Your task to perform on an android device: turn off smart reply in the gmail app Image 0: 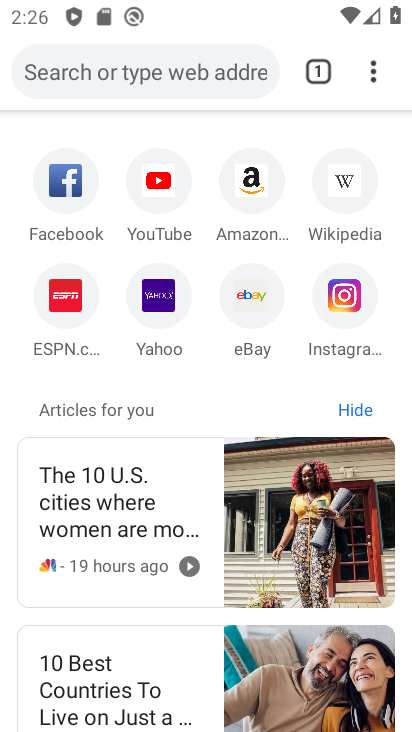
Step 0: press home button
Your task to perform on an android device: turn off smart reply in the gmail app Image 1: 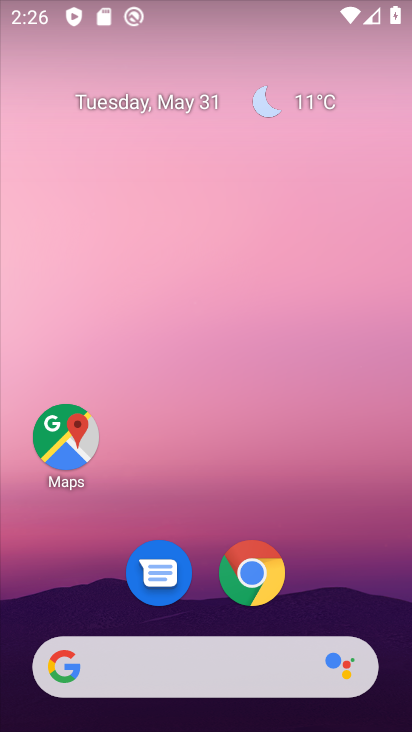
Step 1: drag from (372, 611) to (243, 141)
Your task to perform on an android device: turn off smart reply in the gmail app Image 2: 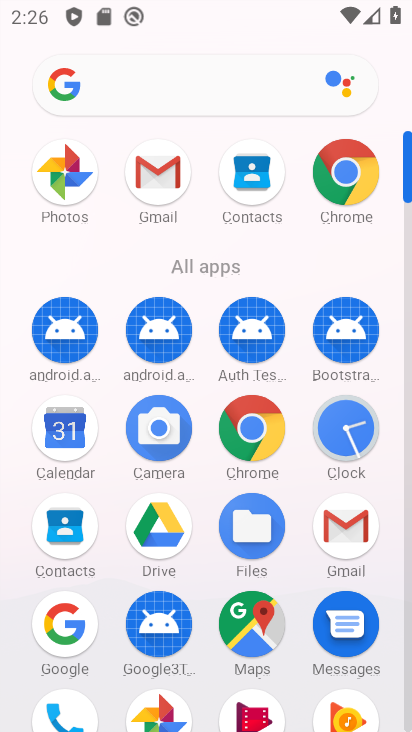
Step 2: click (168, 189)
Your task to perform on an android device: turn off smart reply in the gmail app Image 3: 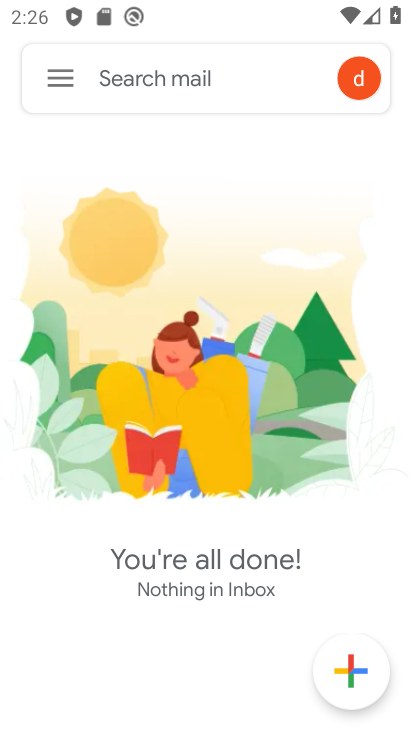
Step 3: click (71, 93)
Your task to perform on an android device: turn off smart reply in the gmail app Image 4: 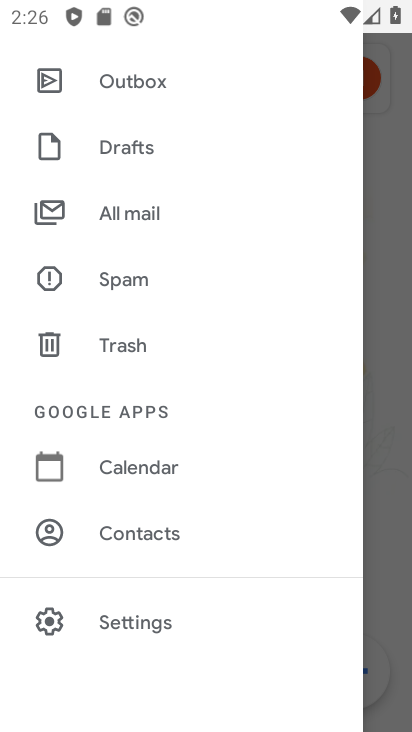
Step 4: click (181, 635)
Your task to perform on an android device: turn off smart reply in the gmail app Image 5: 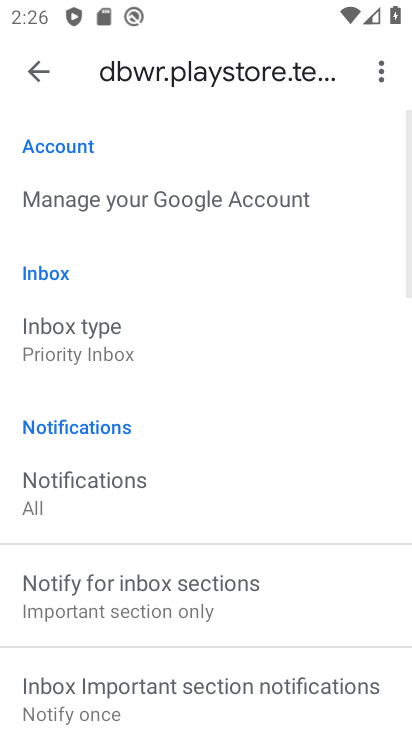
Step 5: drag from (181, 635) to (176, 170)
Your task to perform on an android device: turn off smart reply in the gmail app Image 6: 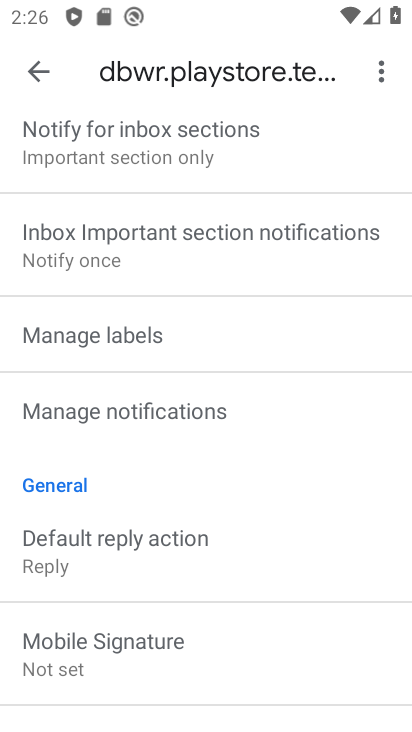
Step 6: drag from (260, 666) to (224, 194)
Your task to perform on an android device: turn off smart reply in the gmail app Image 7: 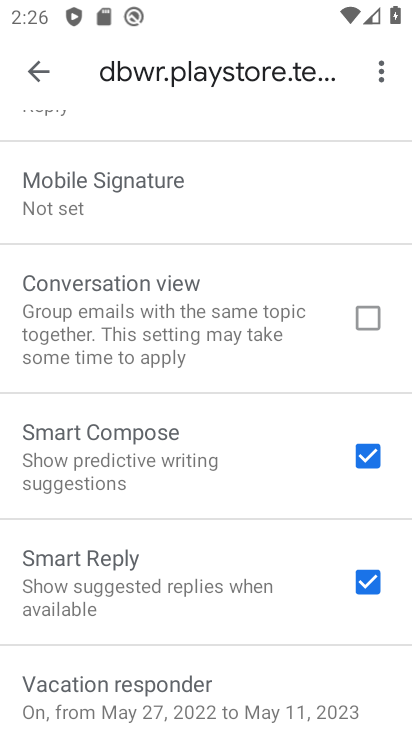
Step 7: click (372, 592)
Your task to perform on an android device: turn off smart reply in the gmail app Image 8: 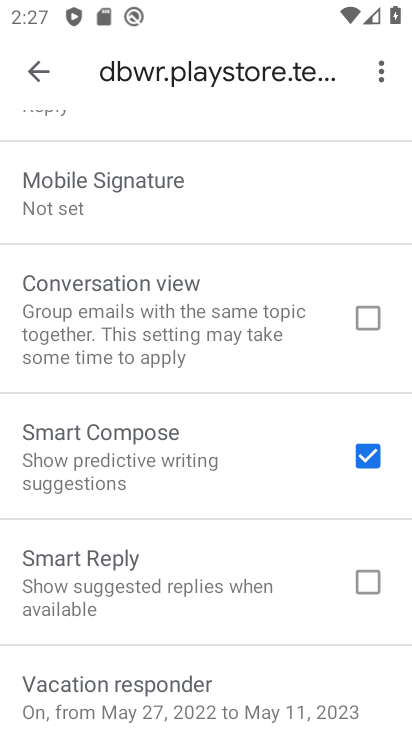
Step 8: task complete